Your task to perform on an android device: toggle notifications settings in the gmail app Image 0: 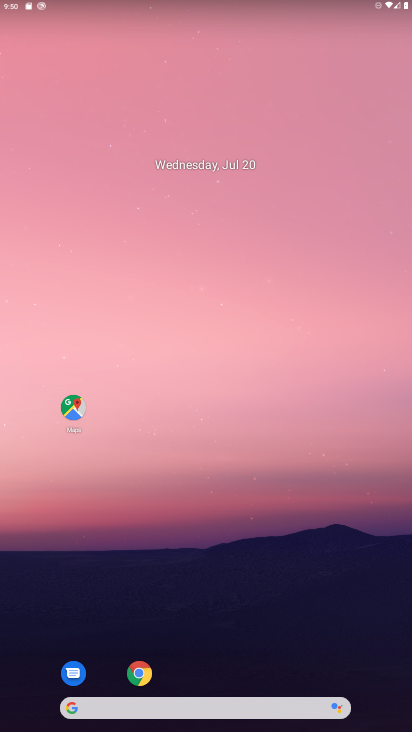
Step 0: drag from (199, 639) to (361, 25)
Your task to perform on an android device: toggle notifications settings in the gmail app Image 1: 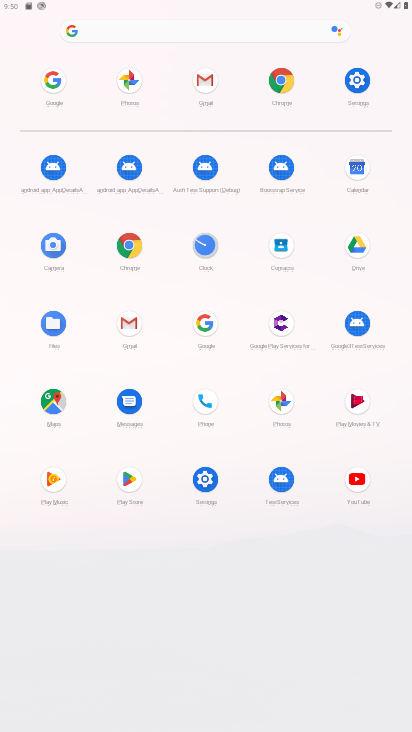
Step 1: click (130, 320)
Your task to perform on an android device: toggle notifications settings in the gmail app Image 2: 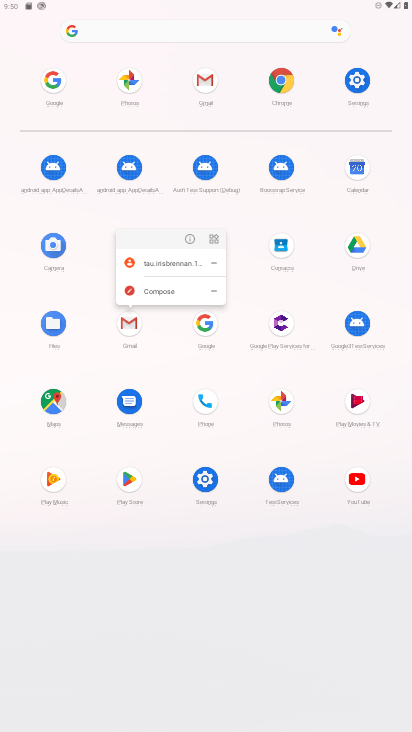
Step 2: click (186, 227)
Your task to perform on an android device: toggle notifications settings in the gmail app Image 3: 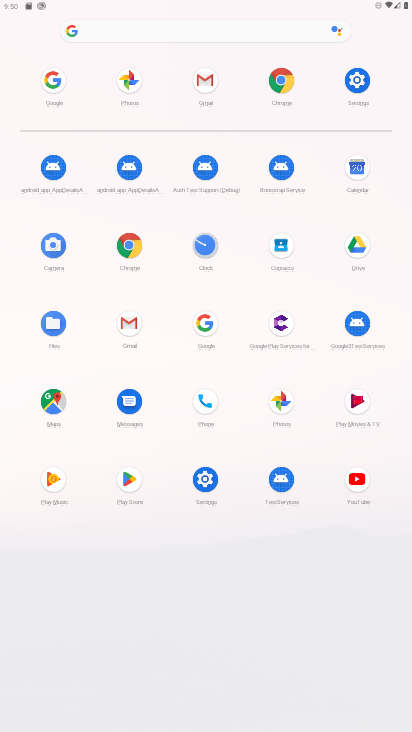
Step 3: click (128, 319)
Your task to perform on an android device: toggle notifications settings in the gmail app Image 4: 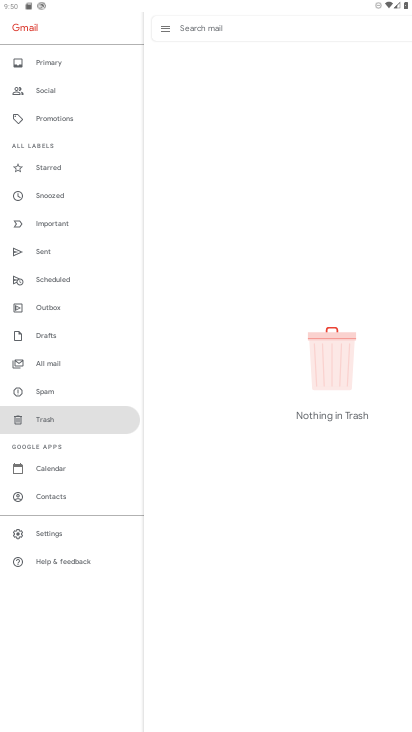
Step 4: click (59, 530)
Your task to perform on an android device: toggle notifications settings in the gmail app Image 5: 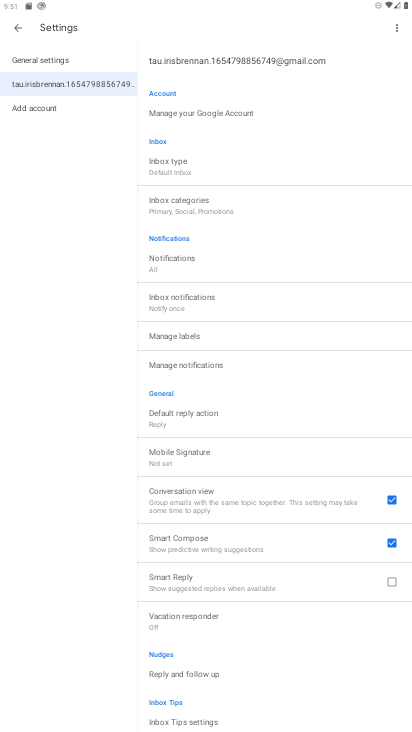
Step 5: click (220, 360)
Your task to perform on an android device: toggle notifications settings in the gmail app Image 6: 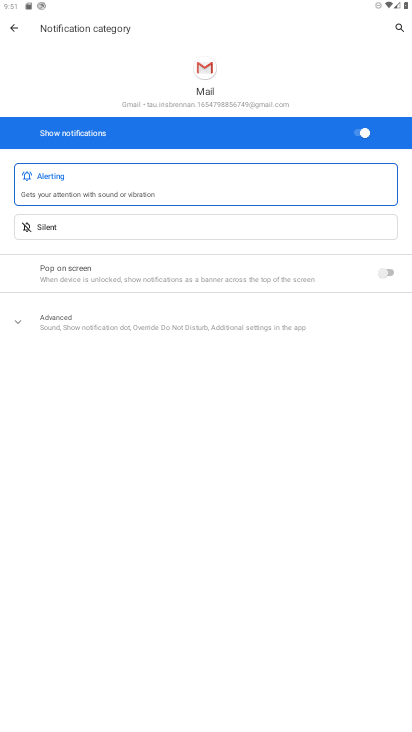
Step 6: click (355, 131)
Your task to perform on an android device: toggle notifications settings in the gmail app Image 7: 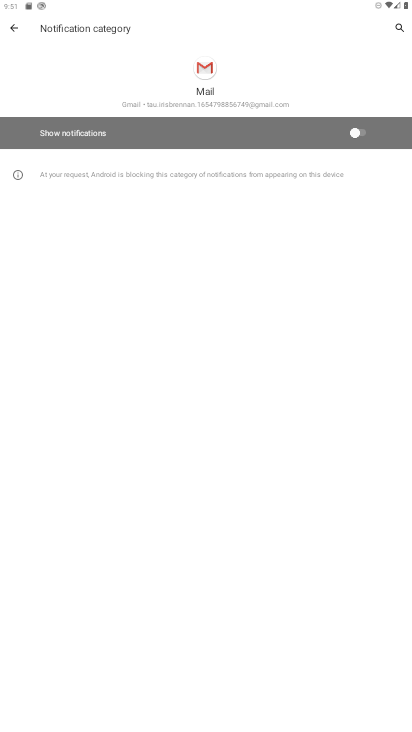
Step 7: task complete